Your task to perform on an android device: Go to sound settings Image 0: 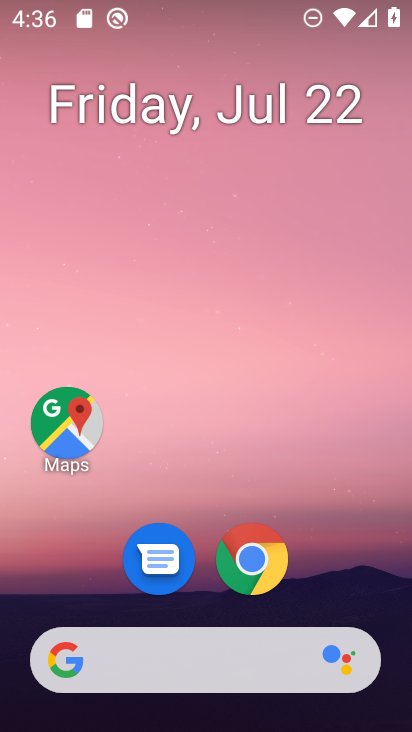
Step 0: drag from (100, 538) to (231, 4)
Your task to perform on an android device: Go to sound settings Image 1: 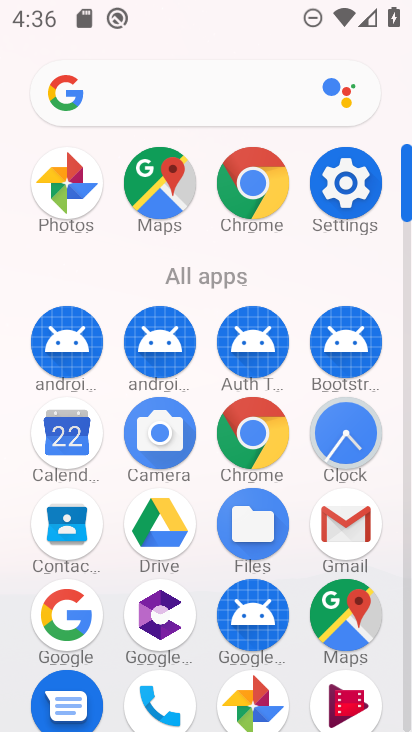
Step 1: click (345, 191)
Your task to perform on an android device: Go to sound settings Image 2: 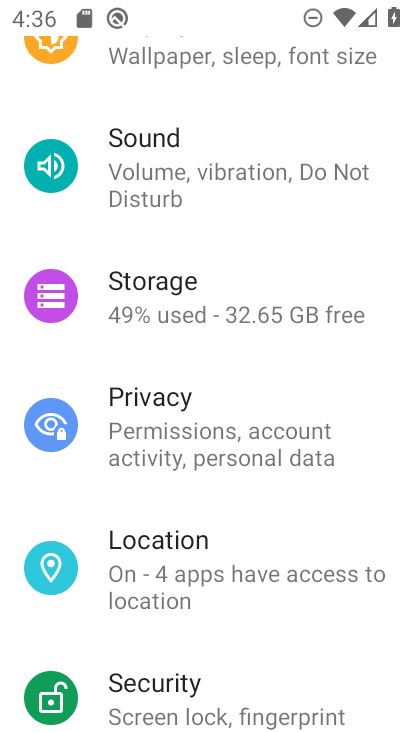
Step 2: click (164, 178)
Your task to perform on an android device: Go to sound settings Image 3: 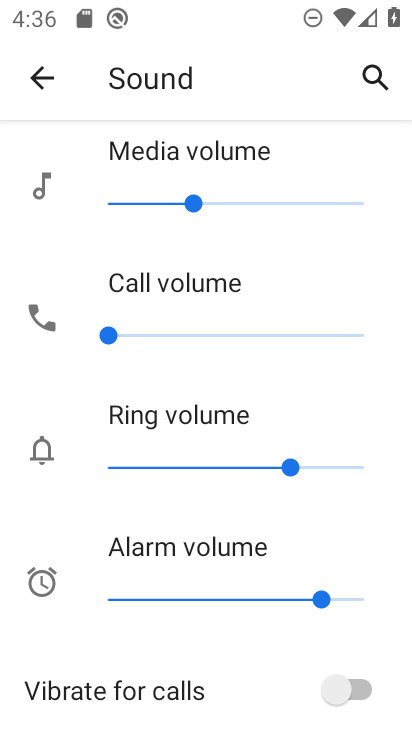
Step 3: task complete